Your task to perform on an android device: turn notification dots on Image 0: 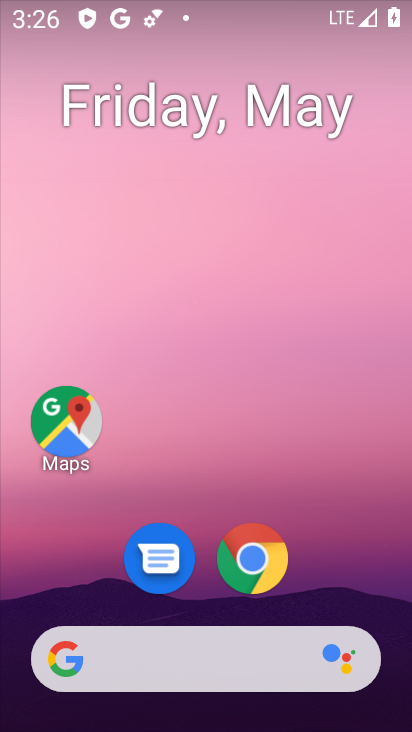
Step 0: press home button
Your task to perform on an android device: turn notification dots on Image 1: 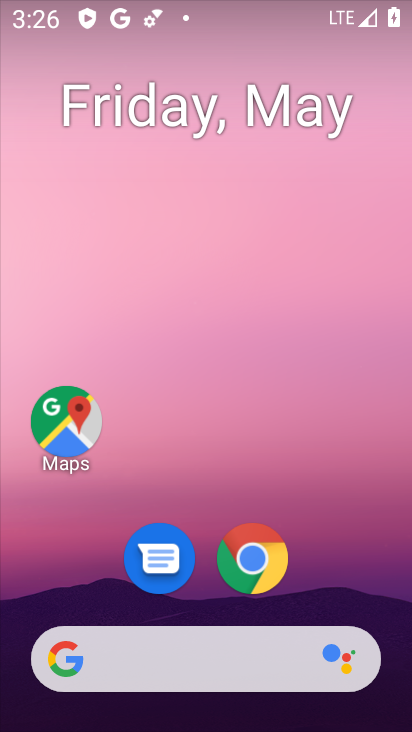
Step 1: drag from (213, 615) to (325, 59)
Your task to perform on an android device: turn notification dots on Image 2: 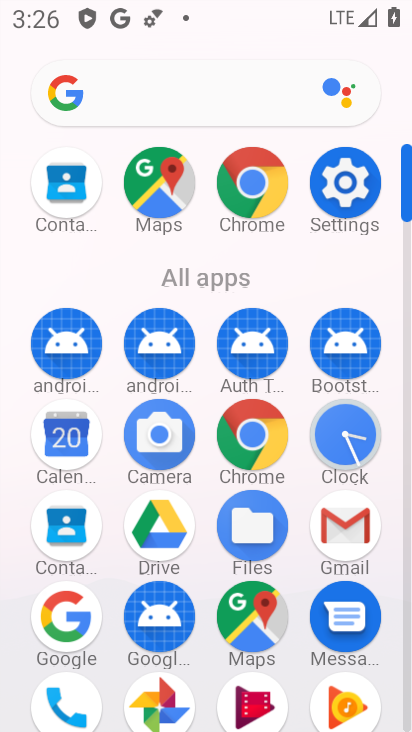
Step 2: click (340, 189)
Your task to perform on an android device: turn notification dots on Image 3: 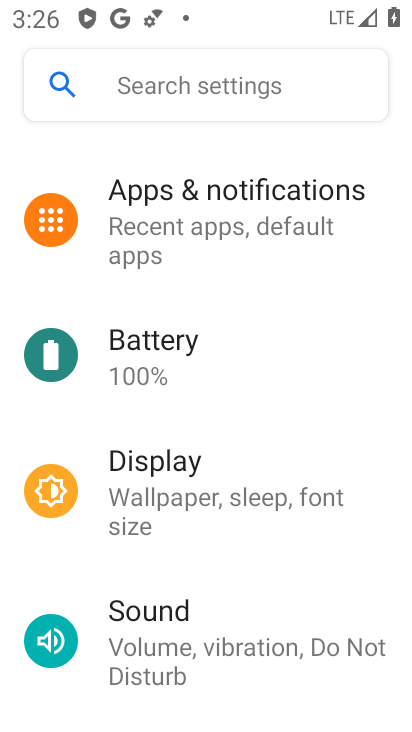
Step 3: click (229, 222)
Your task to perform on an android device: turn notification dots on Image 4: 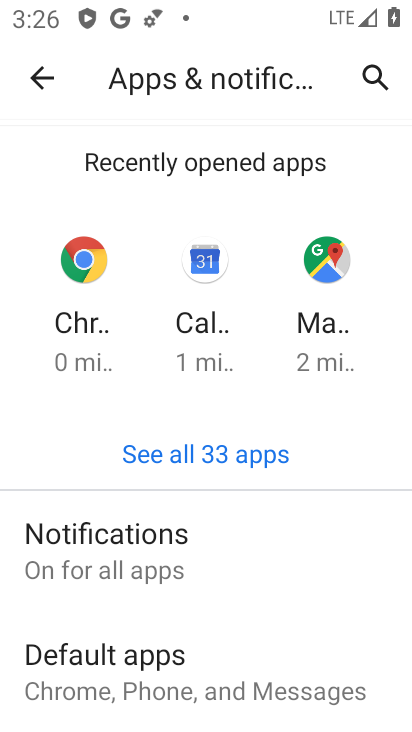
Step 4: click (164, 544)
Your task to perform on an android device: turn notification dots on Image 5: 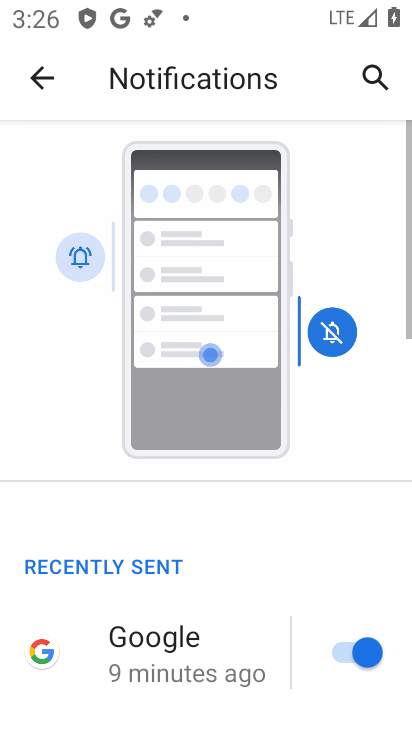
Step 5: drag from (193, 609) to (345, 50)
Your task to perform on an android device: turn notification dots on Image 6: 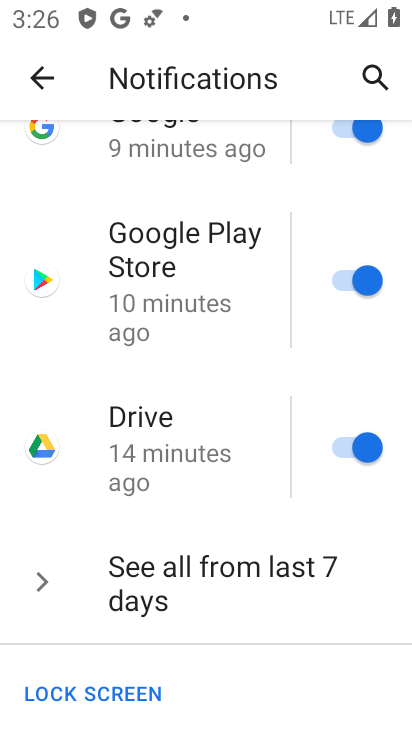
Step 6: drag from (196, 645) to (299, 207)
Your task to perform on an android device: turn notification dots on Image 7: 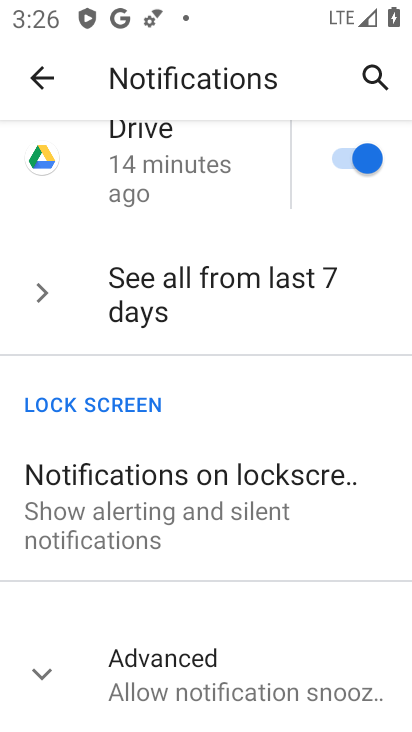
Step 7: click (188, 677)
Your task to perform on an android device: turn notification dots on Image 8: 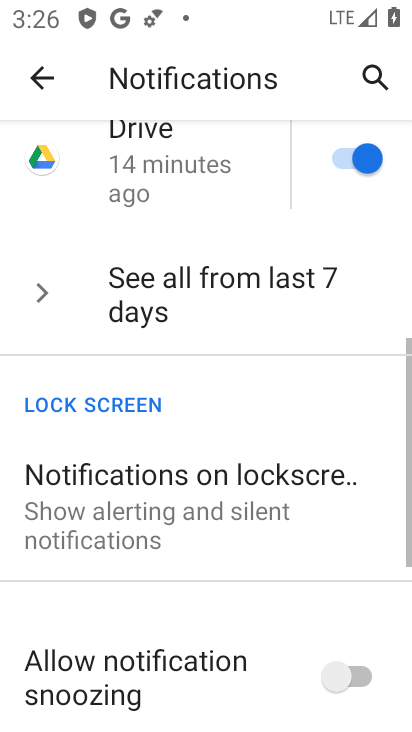
Step 8: task complete